Your task to perform on an android device: What's the weather going to be tomorrow? Image 0: 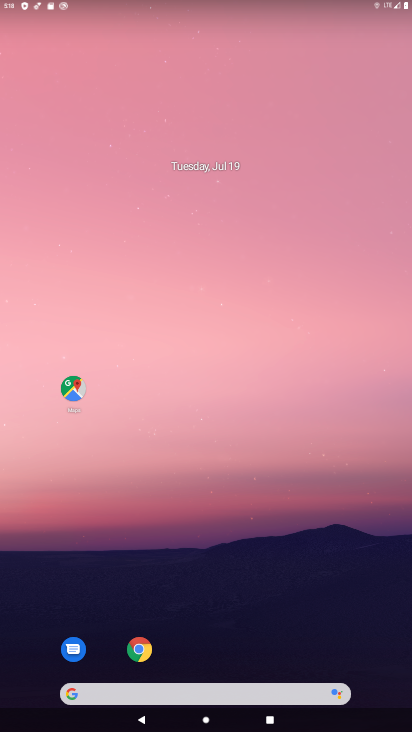
Step 0: drag from (287, 601) to (190, 33)
Your task to perform on an android device: What's the weather going to be tomorrow? Image 1: 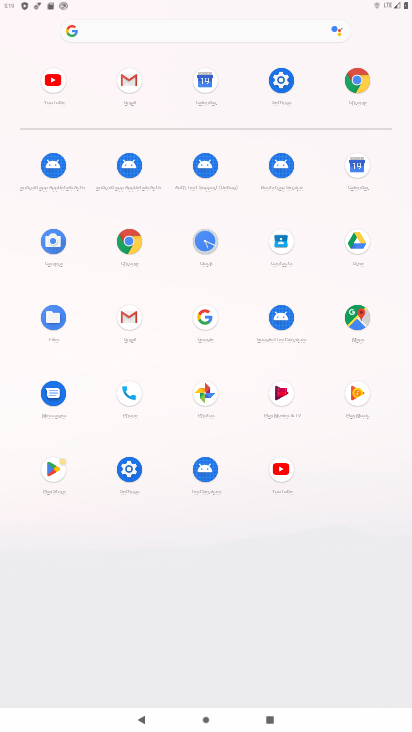
Step 1: click (361, 79)
Your task to perform on an android device: What's the weather going to be tomorrow? Image 2: 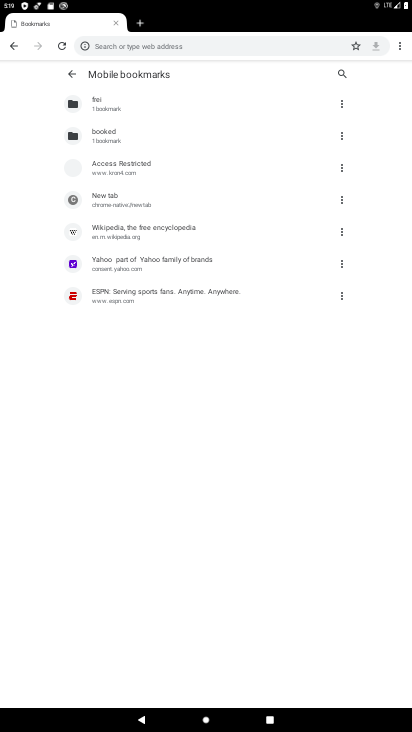
Step 2: click (228, 42)
Your task to perform on an android device: What's the weather going to be tomorrow? Image 3: 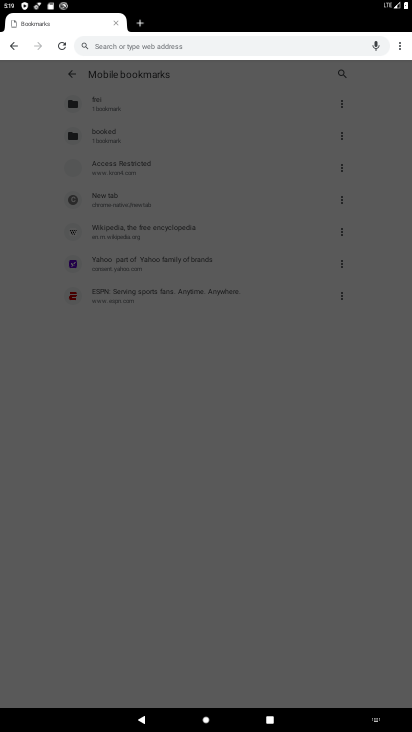
Step 3: type "weather"
Your task to perform on an android device: What's the weather going to be tomorrow? Image 4: 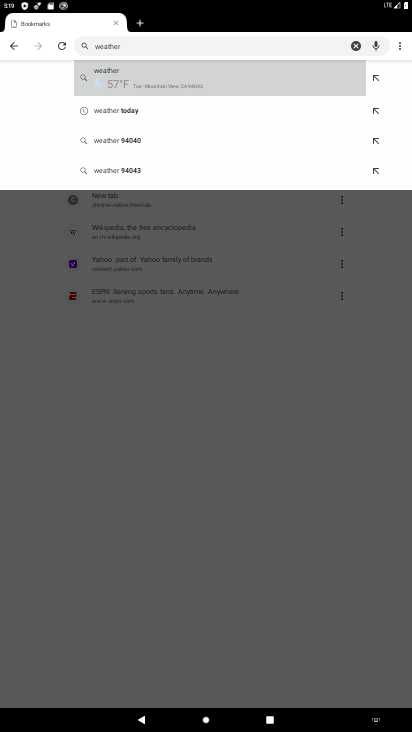
Step 4: click (154, 76)
Your task to perform on an android device: What's the weather going to be tomorrow? Image 5: 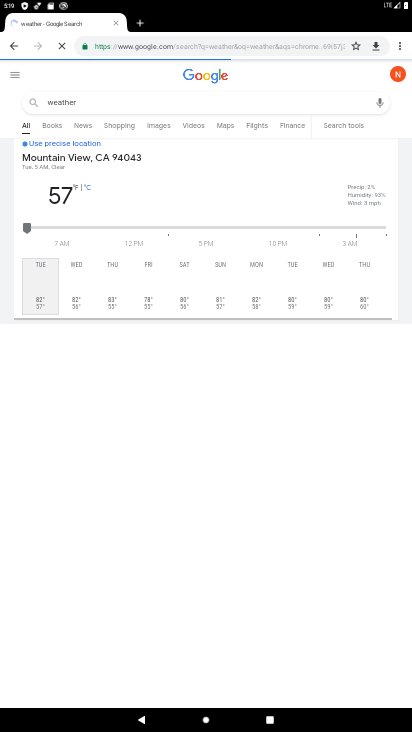
Step 5: click (78, 270)
Your task to perform on an android device: What's the weather going to be tomorrow? Image 6: 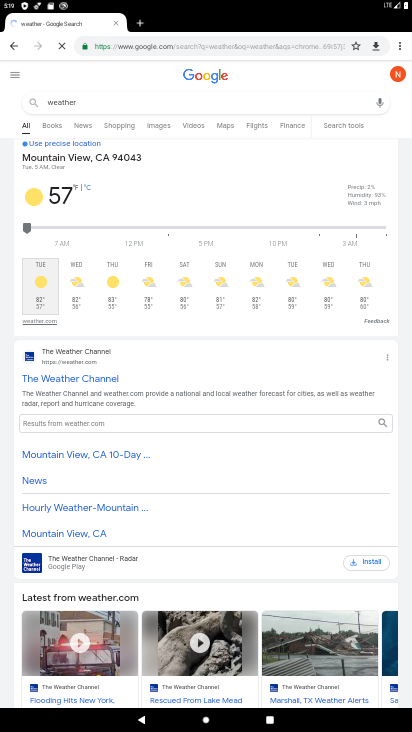
Step 6: click (72, 273)
Your task to perform on an android device: What's the weather going to be tomorrow? Image 7: 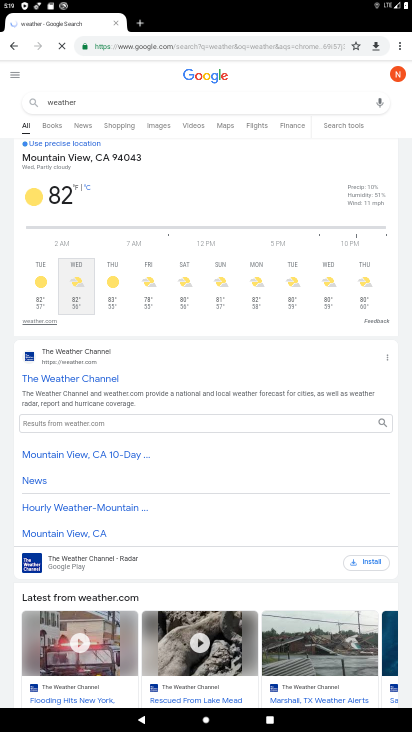
Step 7: click (72, 273)
Your task to perform on an android device: What's the weather going to be tomorrow? Image 8: 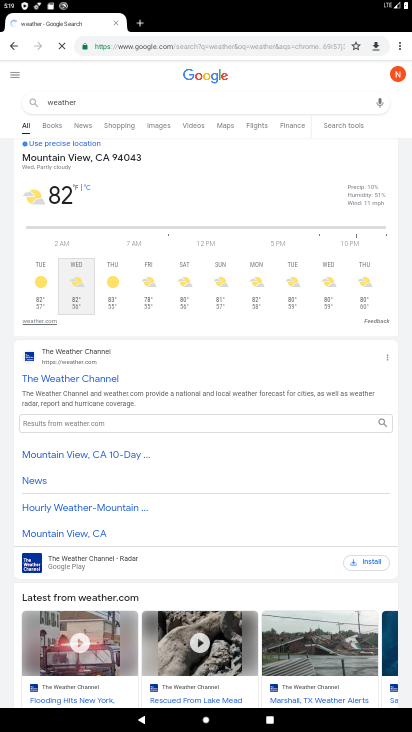
Step 8: click (72, 273)
Your task to perform on an android device: What's the weather going to be tomorrow? Image 9: 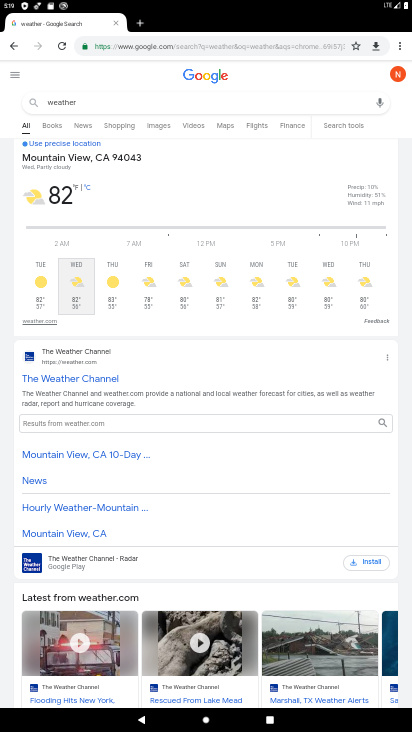
Step 9: task complete